Your task to perform on an android device: Go to Android settings Image 0: 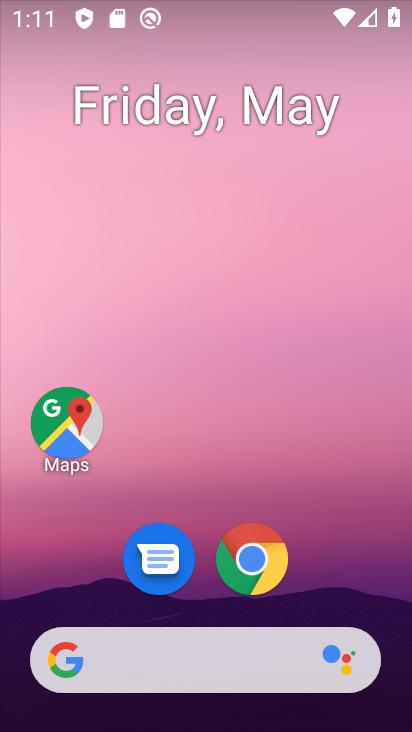
Step 0: drag from (354, 528) to (354, 168)
Your task to perform on an android device: Go to Android settings Image 1: 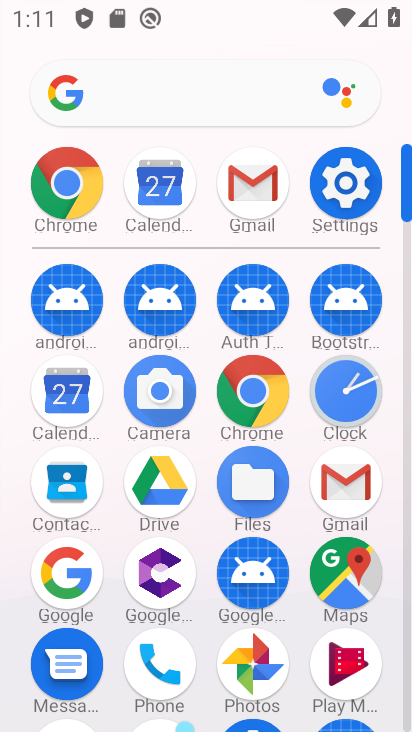
Step 1: click (336, 200)
Your task to perform on an android device: Go to Android settings Image 2: 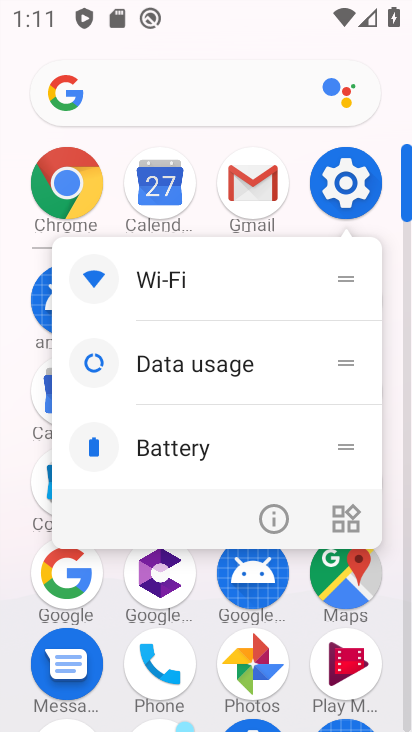
Step 2: click (331, 199)
Your task to perform on an android device: Go to Android settings Image 3: 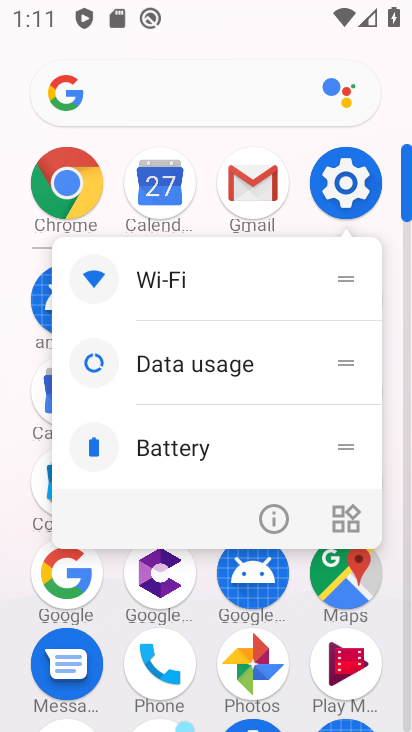
Step 3: click (330, 198)
Your task to perform on an android device: Go to Android settings Image 4: 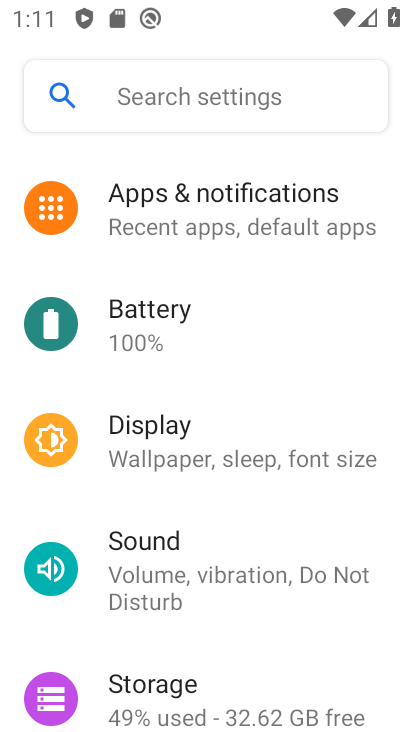
Step 4: drag from (294, 630) to (313, 340)
Your task to perform on an android device: Go to Android settings Image 5: 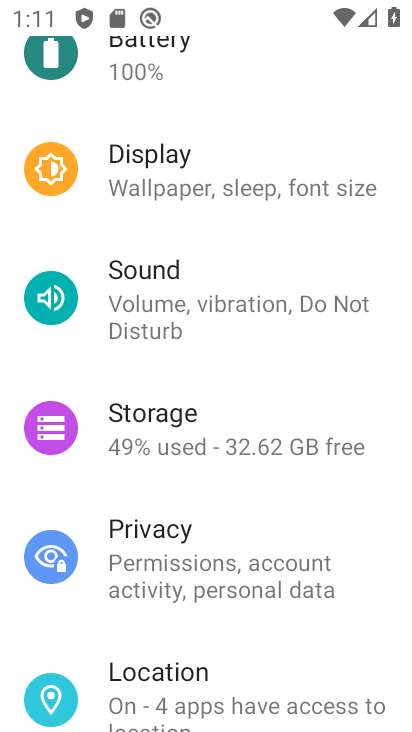
Step 5: drag from (299, 684) to (320, 318)
Your task to perform on an android device: Go to Android settings Image 6: 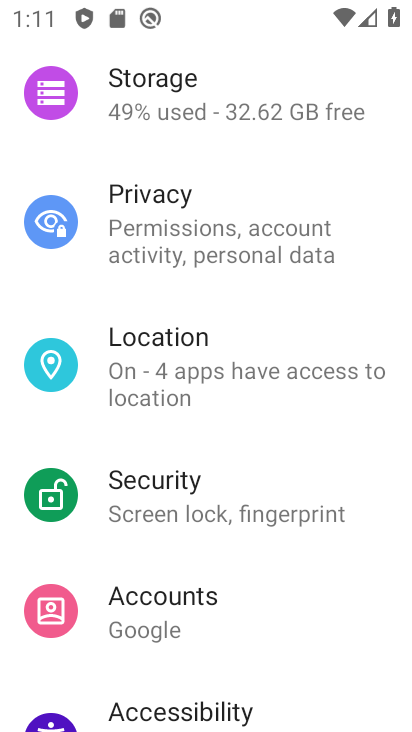
Step 6: drag from (284, 651) to (287, 314)
Your task to perform on an android device: Go to Android settings Image 7: 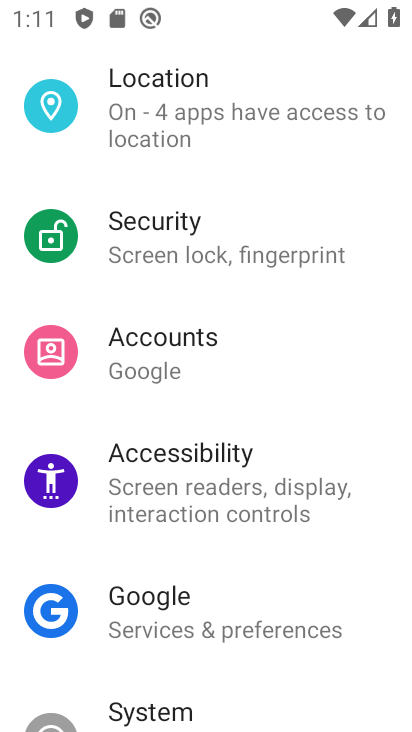
Step 7: click (246, 304)
Your task to perform on an android device: Go to Android settings Image 8: 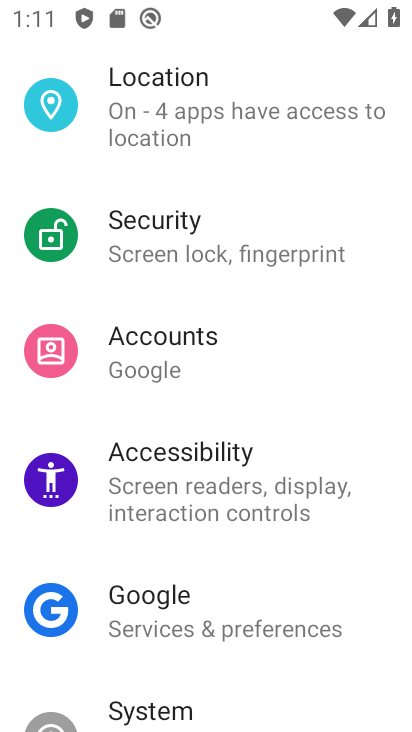
Step 8: drag from (255, 677) to (260, 227)
Your task to perform on an android device: Go to Android settings Image 9: 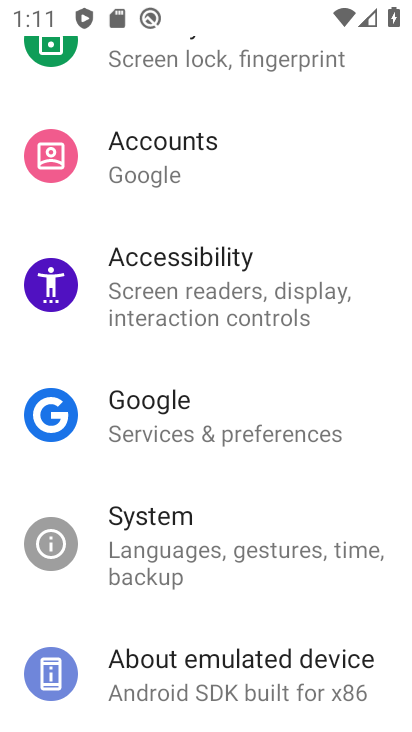
Step 9: click (250, 668)
Your task to perform on an android device: Go to Android settings Image 10: 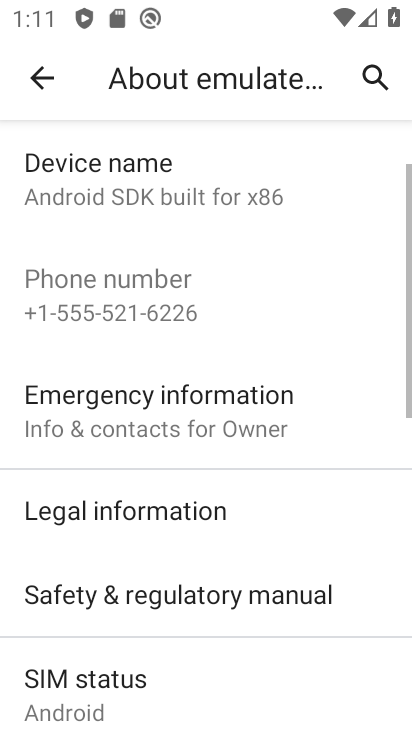
Step 10: drag from (263, 659) to (324, 116)
Your task to perform on an android device: Go to Android settings Image 11: 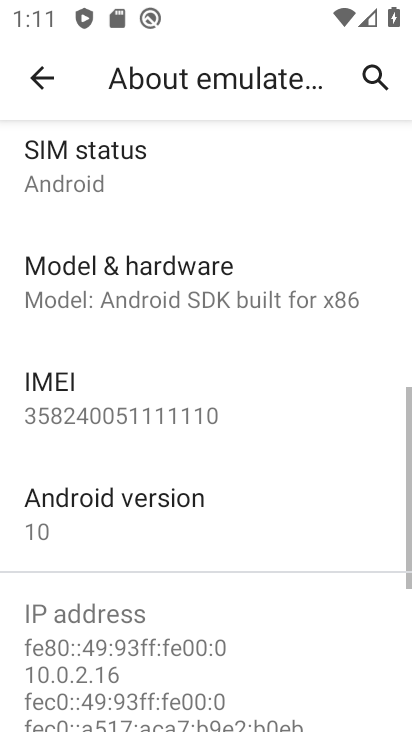
Step 11: drag from (252, 611) to (317, 237)
Your task to perform on an android device: Go to Android settings Image 12: 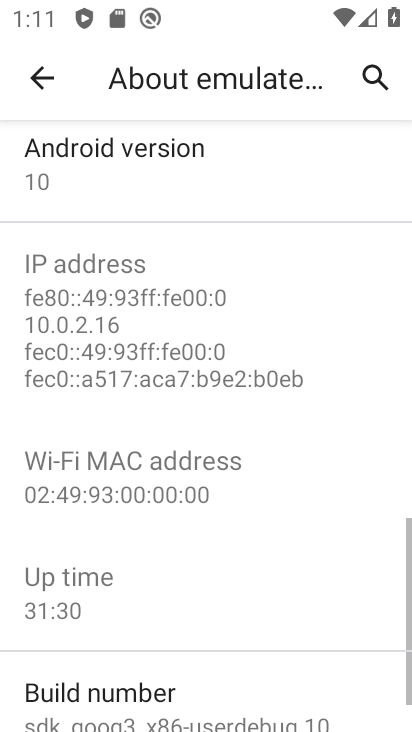
Step 12: drag from (250, 587) to (285, 281)
Your task to perform on an android device: Go to Android settings Image 13: 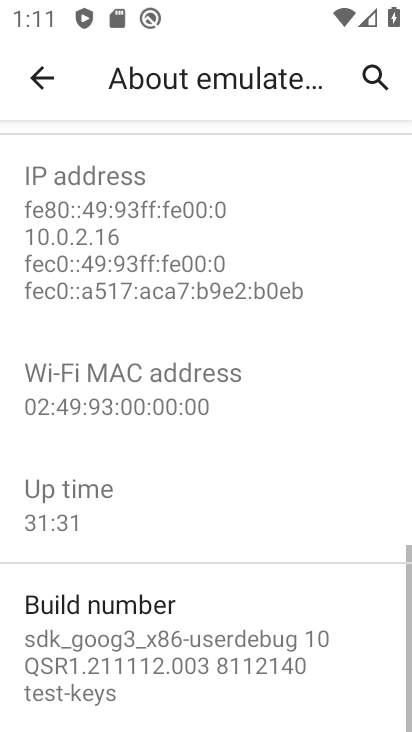
Step 13: drag from (271, 599) to (282, 195)
Your task to perform on an android device: Go to Android settings Image 14: 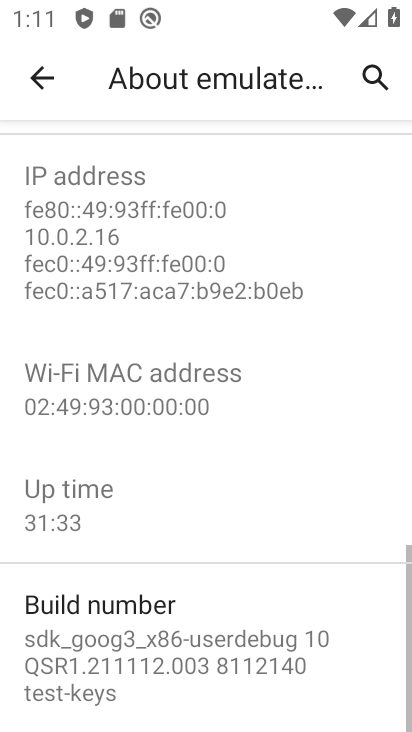
Step 14: drag from (272, 308) to (272, 705)
Your task to perform on an android device: Go to Android settings Image 15: 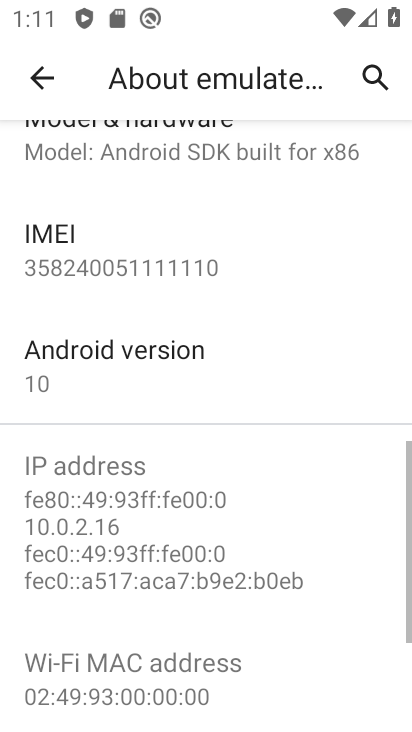
Step 15: click (242, 369)
Your task to perform on an android device: Go to Android settings Image 16: 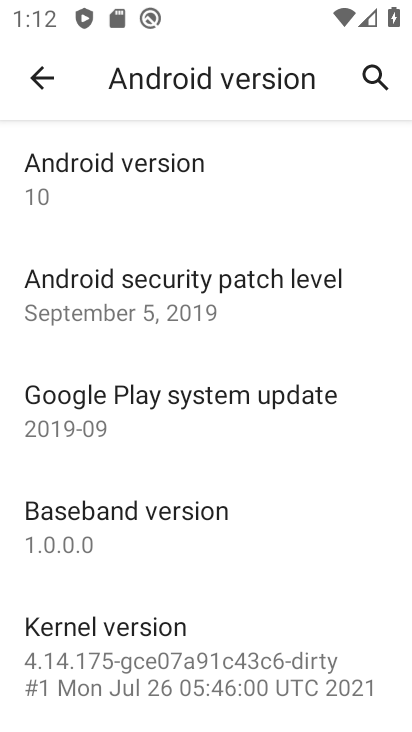
Step 16: task complete